Your task to perform on an android device: Go to wifi settings Image 0: 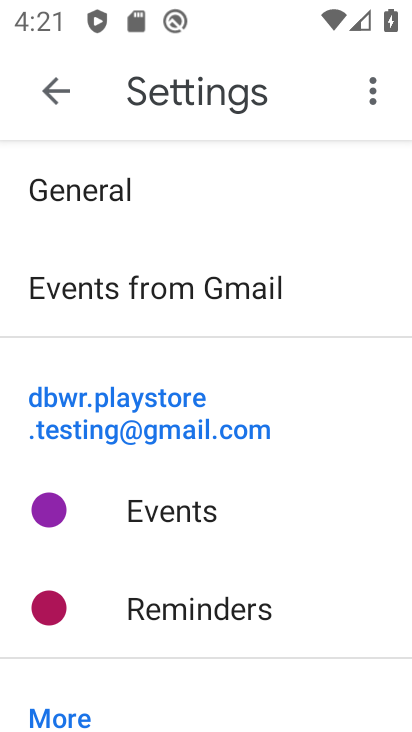
Step 0: press home button
Your task to perform on an android device: Go to wifi settings Image 1: 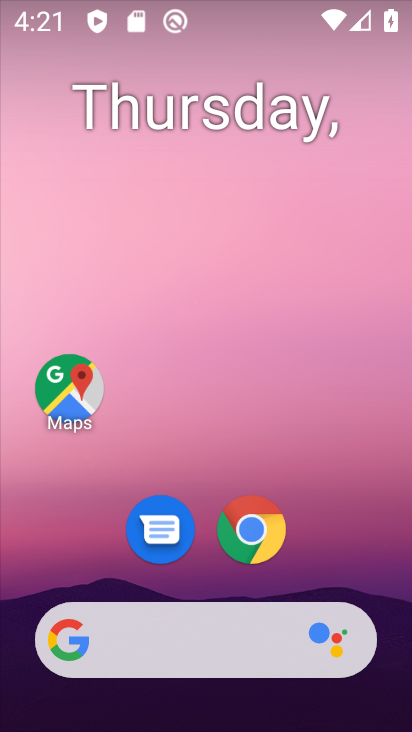
Step 1: drag from (192, 721) to (202, 234)
Your task to perform on an android device: Go to wifi settings Image 2: 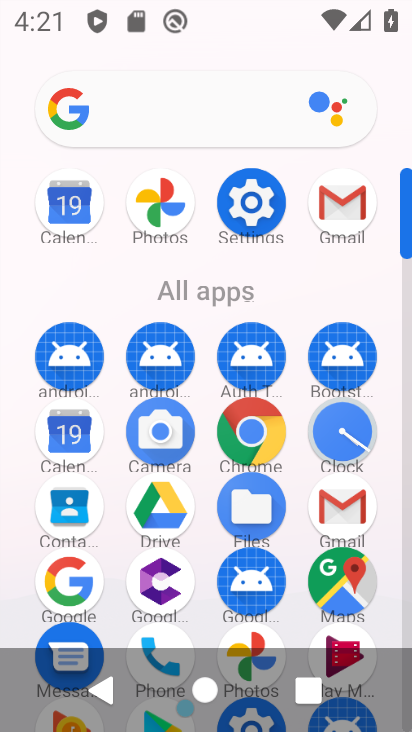
Step 2: click (257, 213)
Your task to perform on an android device: Go to wifi settings Image 3: 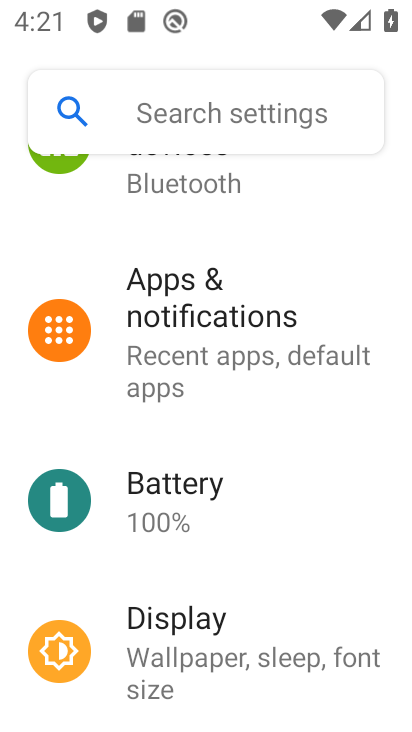
Step 3: drag from (249, 222) to (248, 590)
Your task to perform on an android device: Go to wifi settings Image 4: 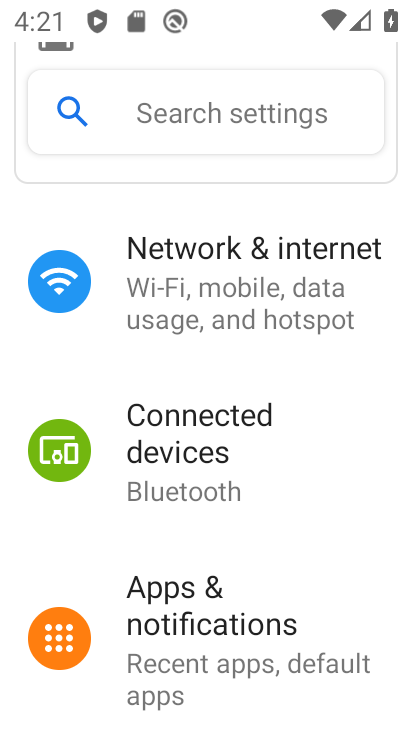
Step 4: drag from (213, 252) to (215, 565)
Your task to perform on an android device: Go to wifi settings Image 5: 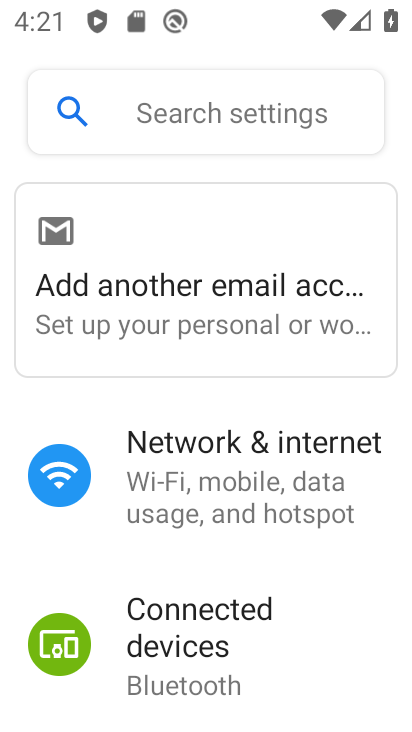
Step 5: click (204, 484)
Your task to perform on an android device: Go to wifi settings Image 6: 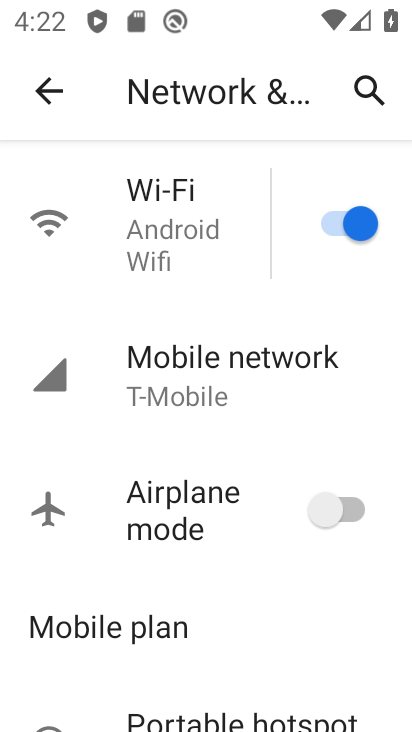
Step 6: click (140, 230)
Your task to perform on an android device: Go to wifi settings Image 7: 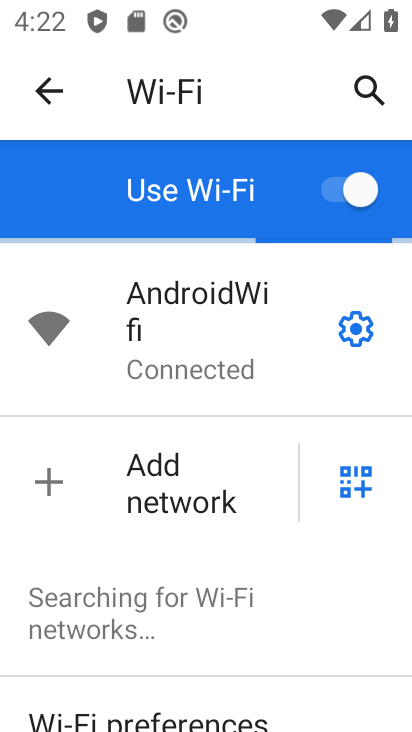
Step 7: task complete